Your task to perform on an android device: What's the weather going to be tomorrow? Image 0: 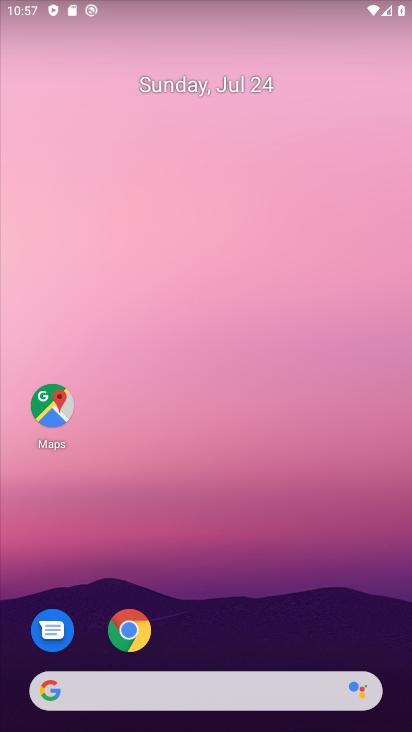
Step 0: drag from (202, 367) to (305, 81)
Your task to perform on an android device: What's the weather going to be tomorrow? Image 1: 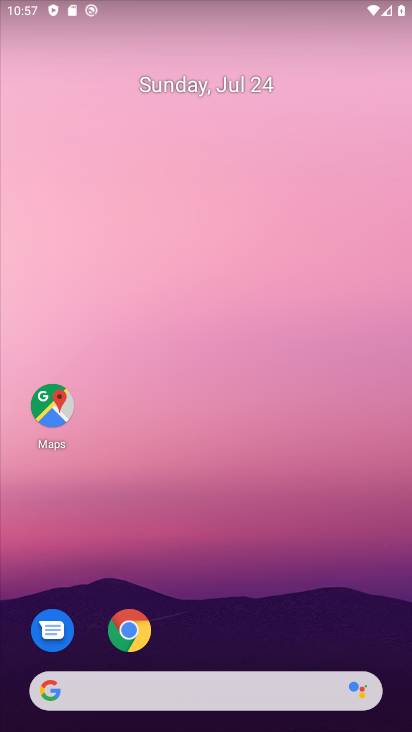
Step 1: drag from (183, 423) to (164, 61)
Your task to perform on an android device: What's the weather going to be tomorrow? Image 2: 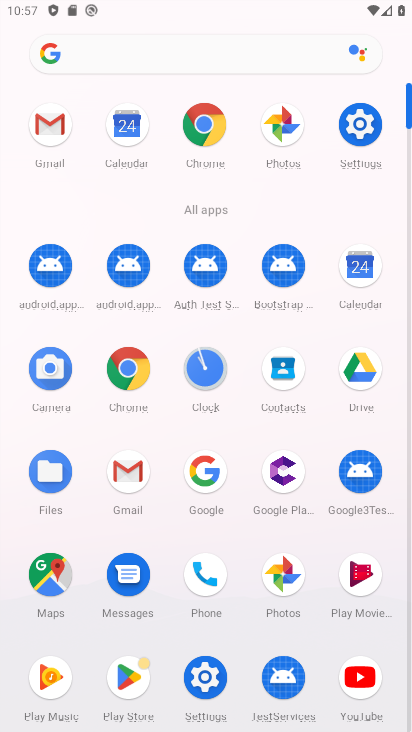
Step 2: click (207, 482)
Your task to perform on an android device: What's the weather going to be tomorrow? Image 3: 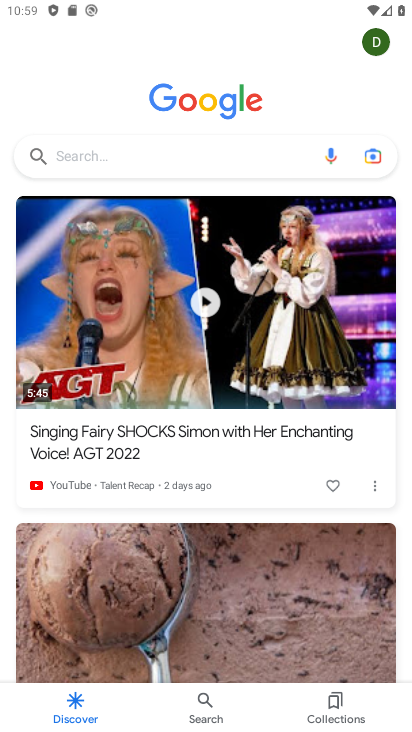
Step 3: press home button
Your task to perform on an android device: What's the weather going to be tomorrow? Image 4: 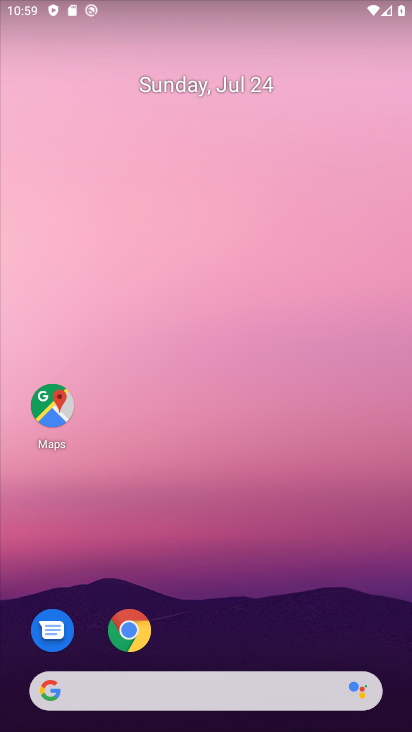
Step 4: drag from (207, 643) to (118, 1)
Your task to perform on an android device: What's the weather going to be tomorrow? Image 5: 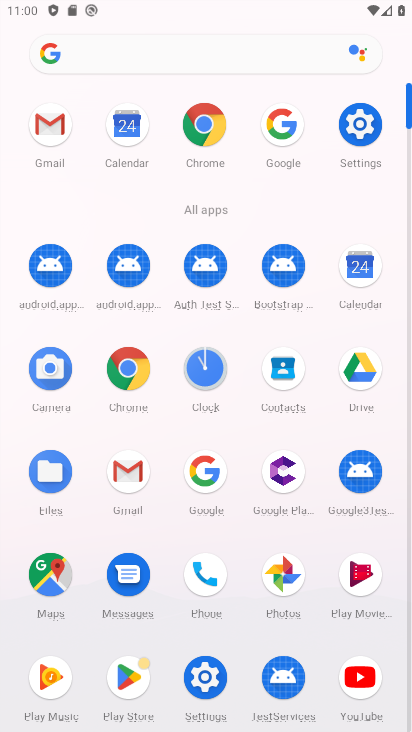
Step 5: click (205, 492)
Your task to perform on an android device: What's the weather going to be tomorrow? Image 6: 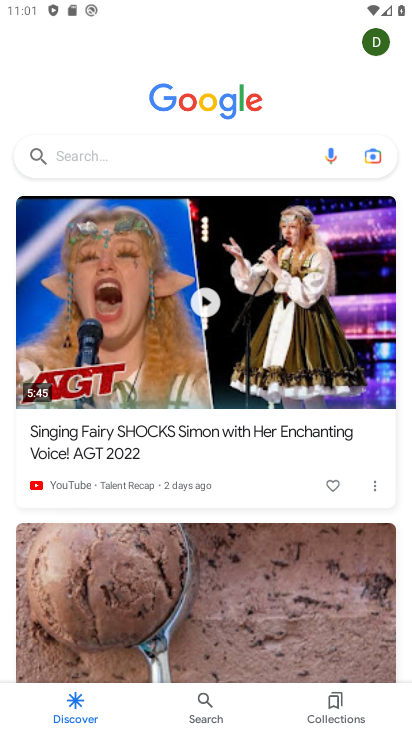
Step 6: click (108, 154)
Your task to perform on an android device: What's the weather going to be tomorrow? Image 7: 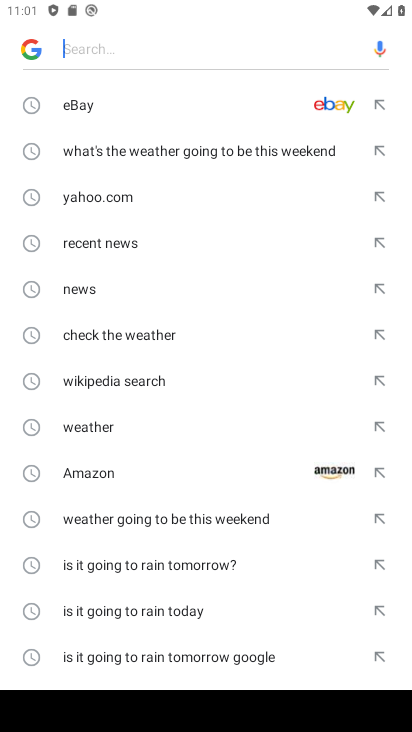
Step 7: click (92, 420)
Your task to perform on an android device: What's the weather going to be tomorrow? Image 8: 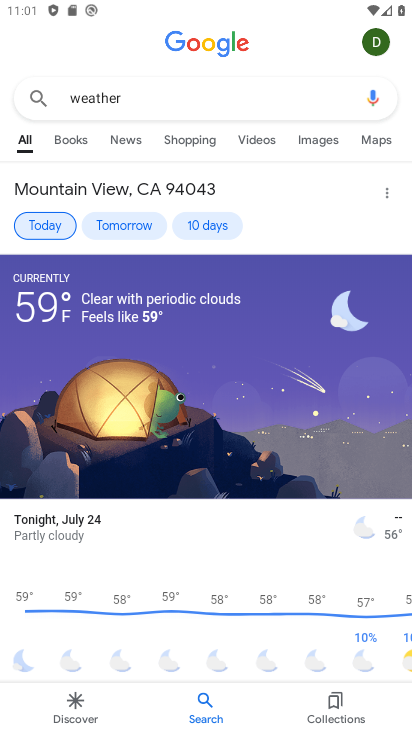
Step 8: click (136, 228)
Your task to perform on an android device: What's the weather going to be tomorrow? Image 9: 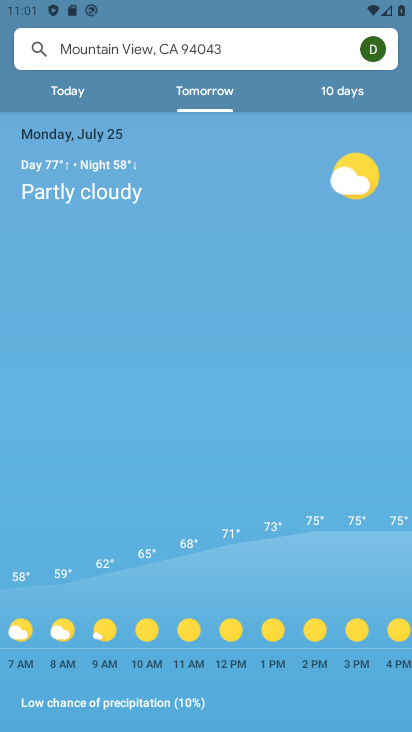
Step 9: task complete